Your task to perform on an android device: Open eBay Image 0: 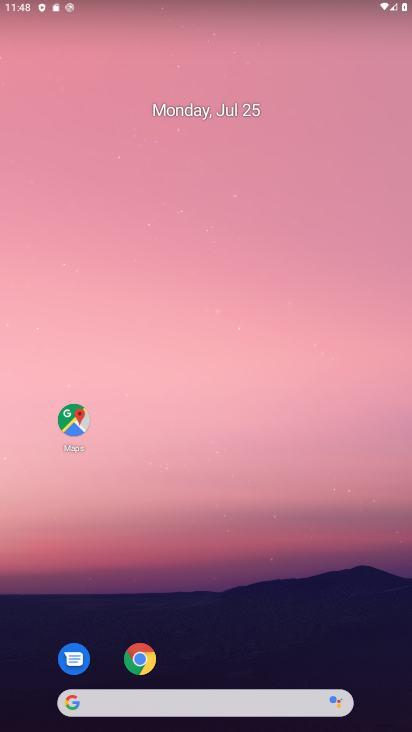
Step 0: drag from (235, 583) to (308, 155)
Your task to perform on an android device: Open eBay Image 1: 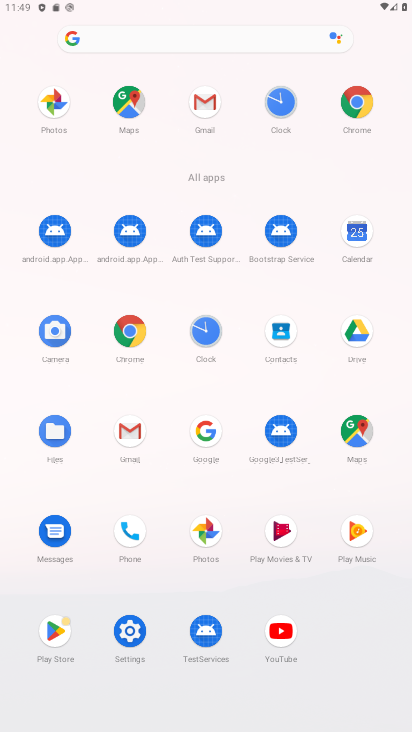
Step 1: click (113, 32)
Your task to perform on an android device: Open eBay Image 2: 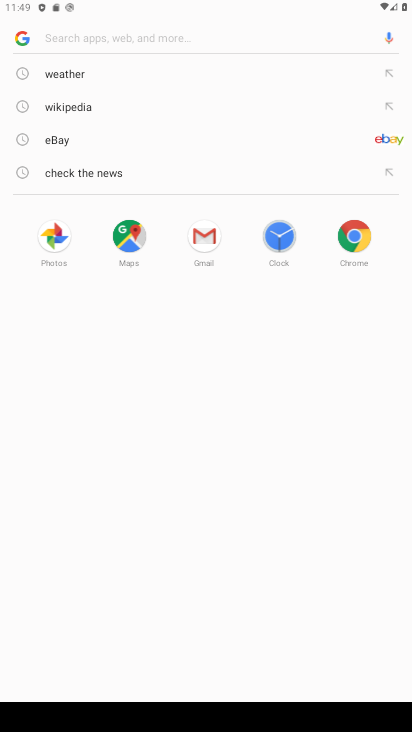
Step 2: click (63, 136)
Your task to perform on an android device: Open eBay Image 3: 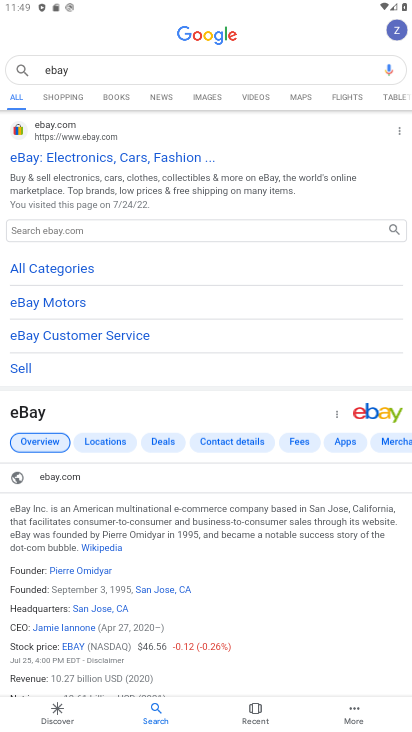
Step 3: click (63, 155)
Your task to perform on an android device: Open eBay Image 4: 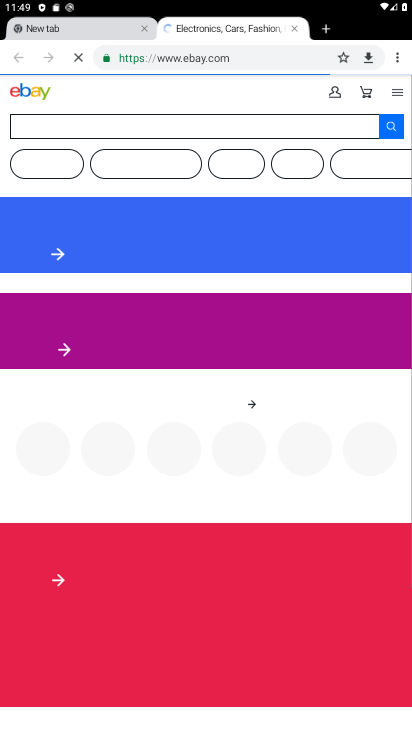
Step 4: task complete